Your task to perform on an android device: Go to notification settings Image 0: 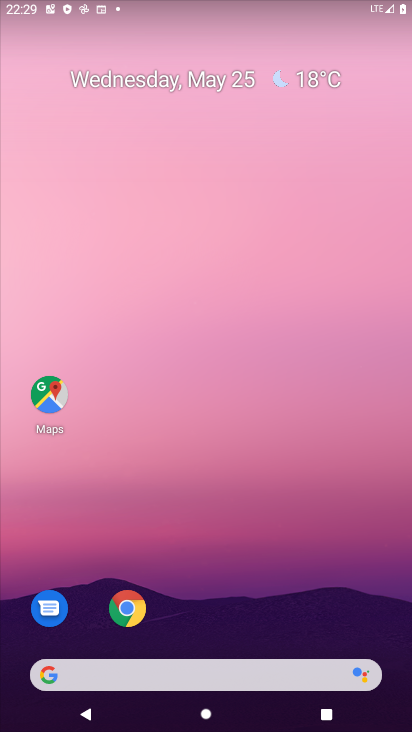
Step 0: drag from (273, 519) to (206, 14)
Your task to perform on an android device: Go to notification settings Image 1: 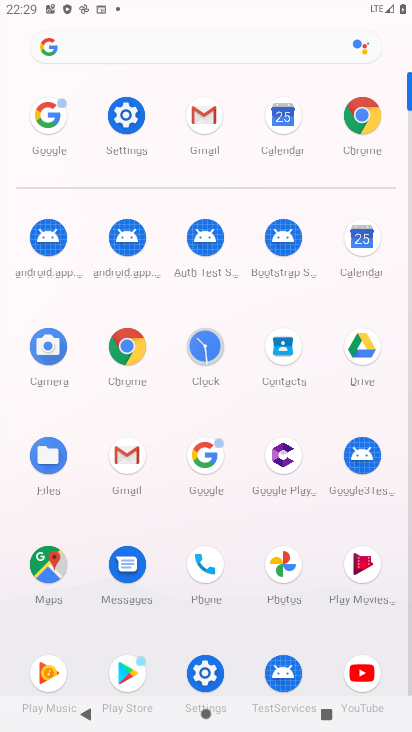
Step 1: click (120, 116)
Your task to perform on an android device: Go to notification settings Image 2: 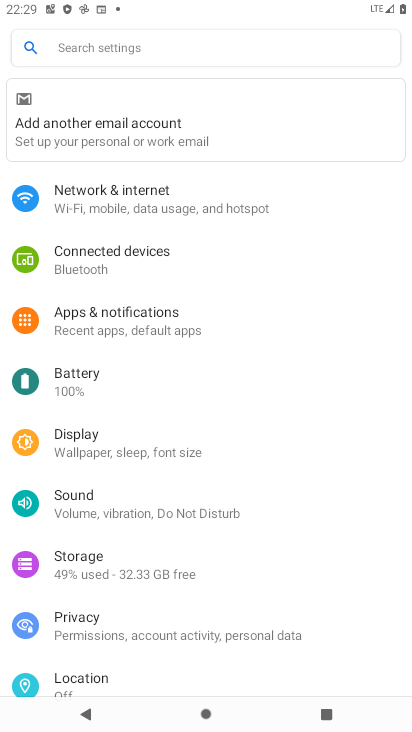
Step 2: click (150, 324)
Your task to perform on an android device: Go to notification settings Image 3: 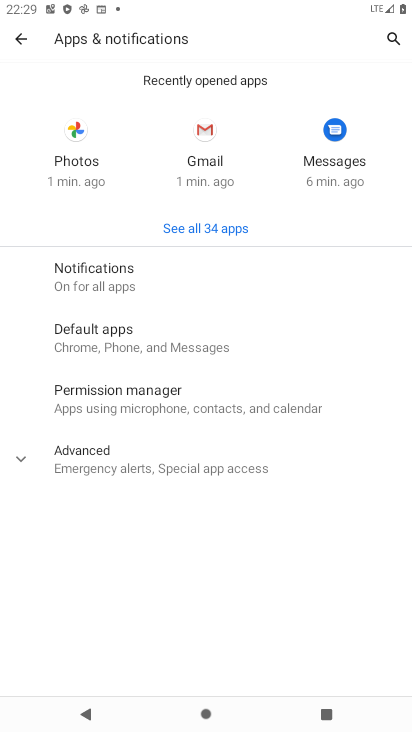
Step 3: task complete